Your task to perform on an android device: Open Google Maps Image 0: 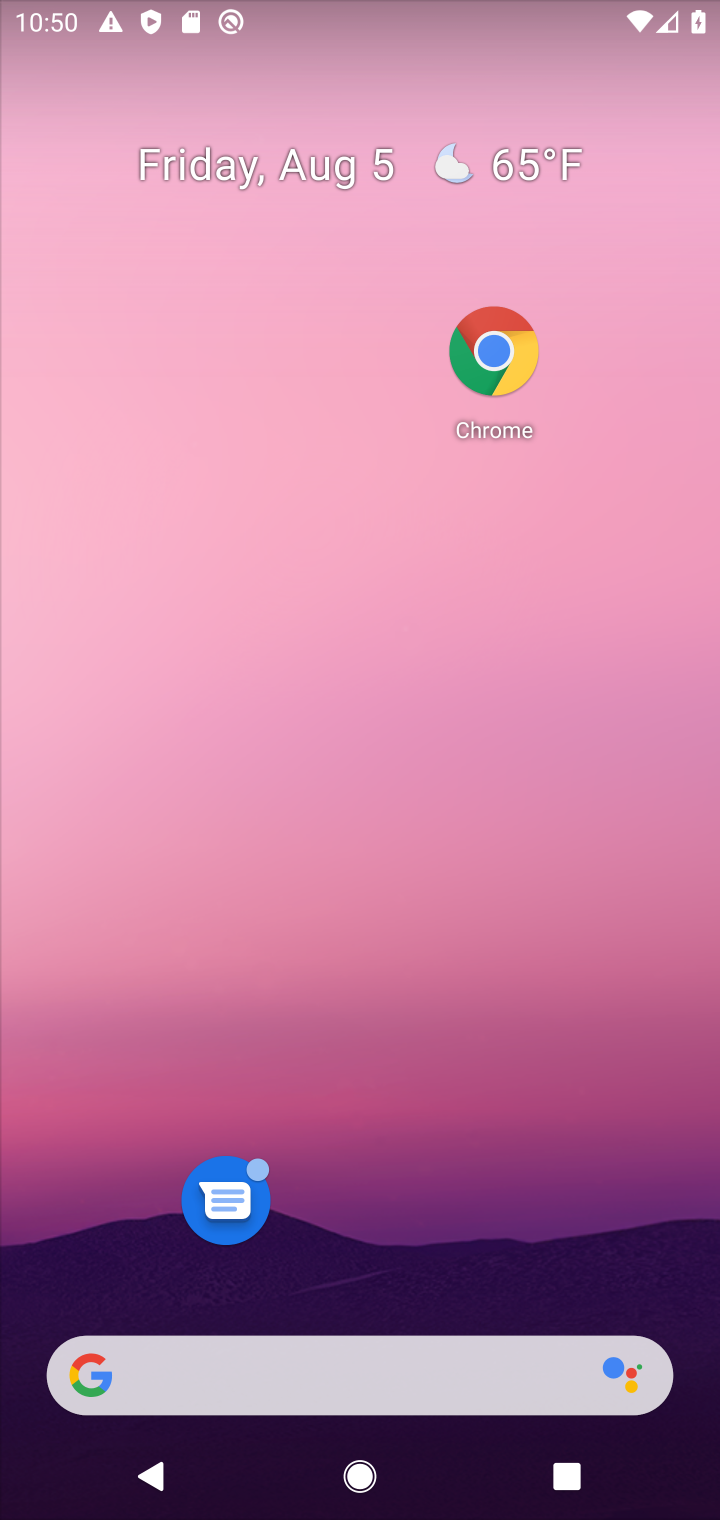
Step 0: drag from (397, 1142) to (462, 421)
Your task to perform on an android device: Open Google Maps Image 1: 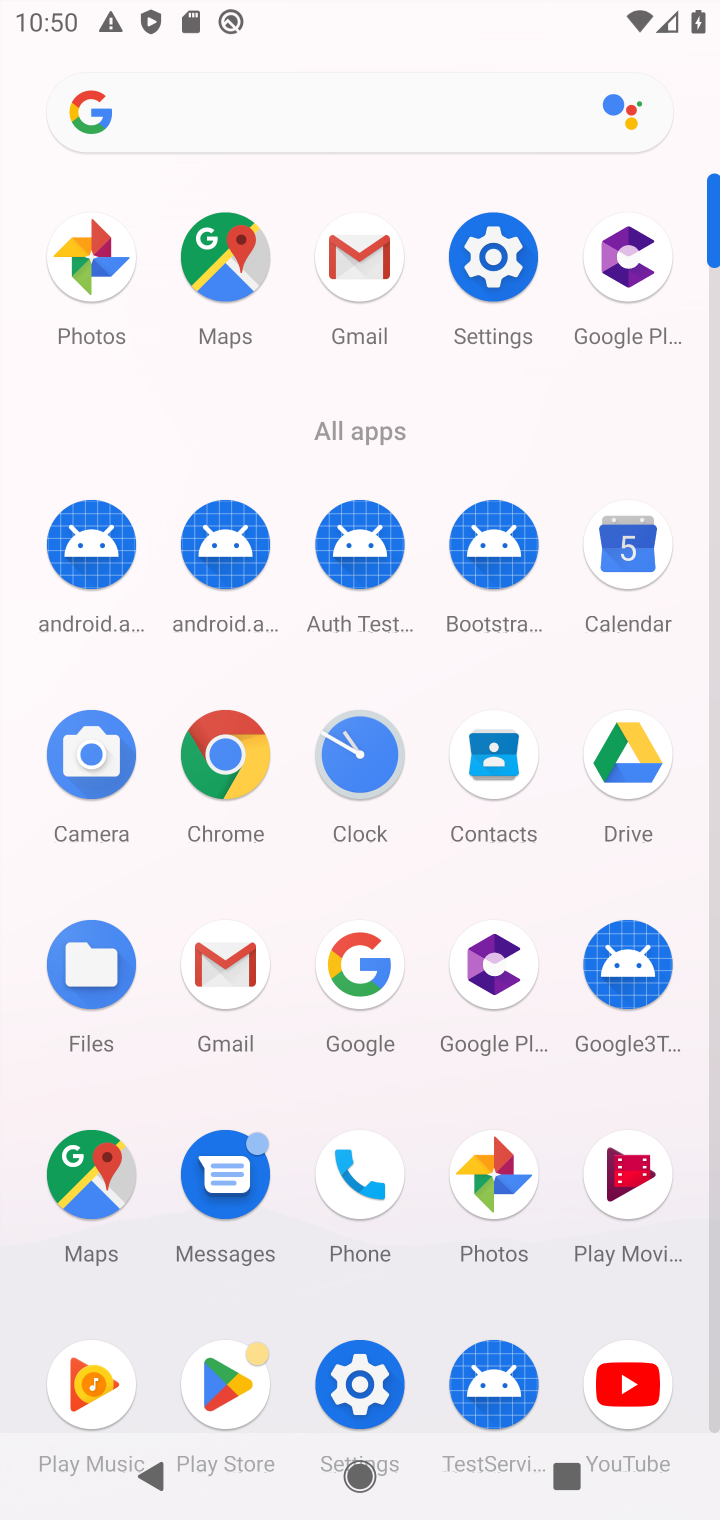
Step 1: click (252, 268)
Your task to perform on an android device: Open Google Maps Image 2: 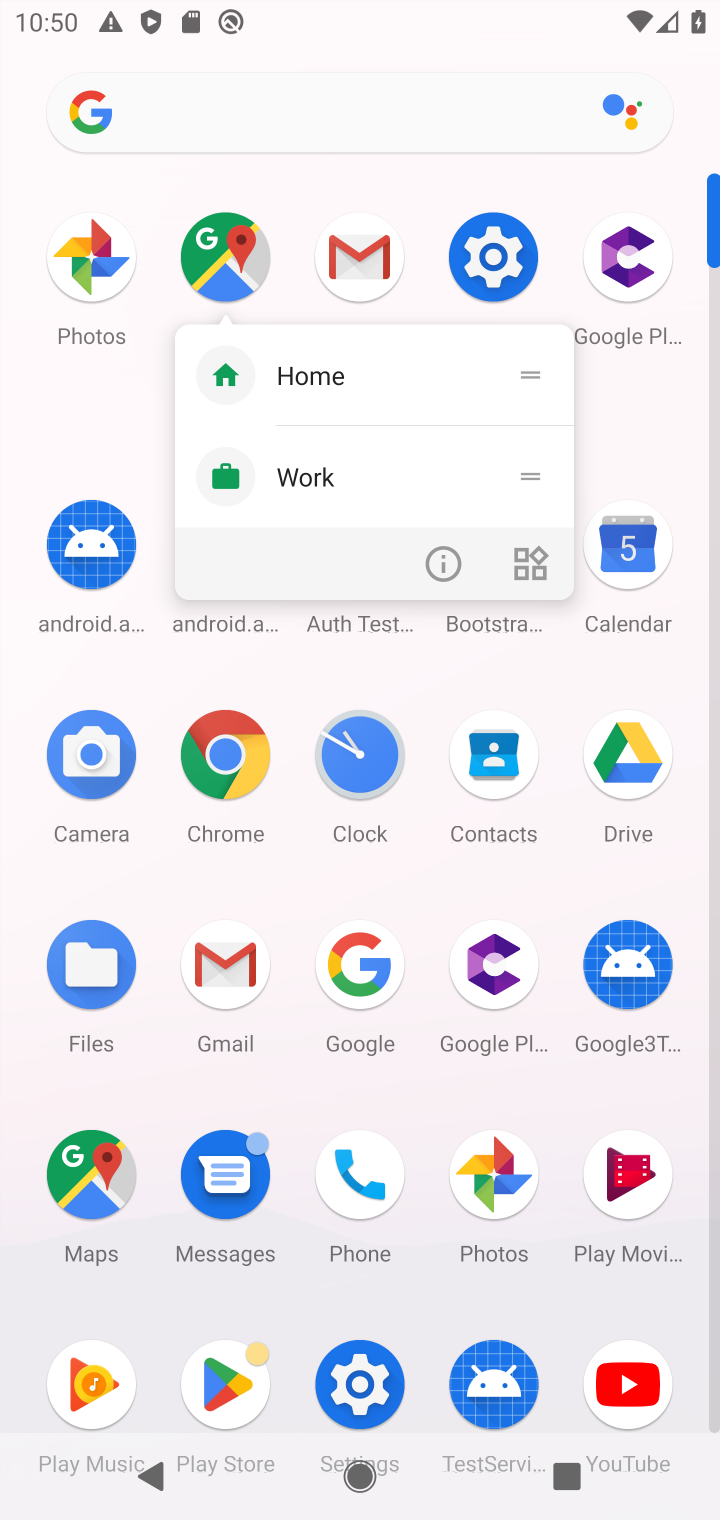
Step 2: click (233, 270)
Your task to perform on an android device: Open Google Maps Image 3: 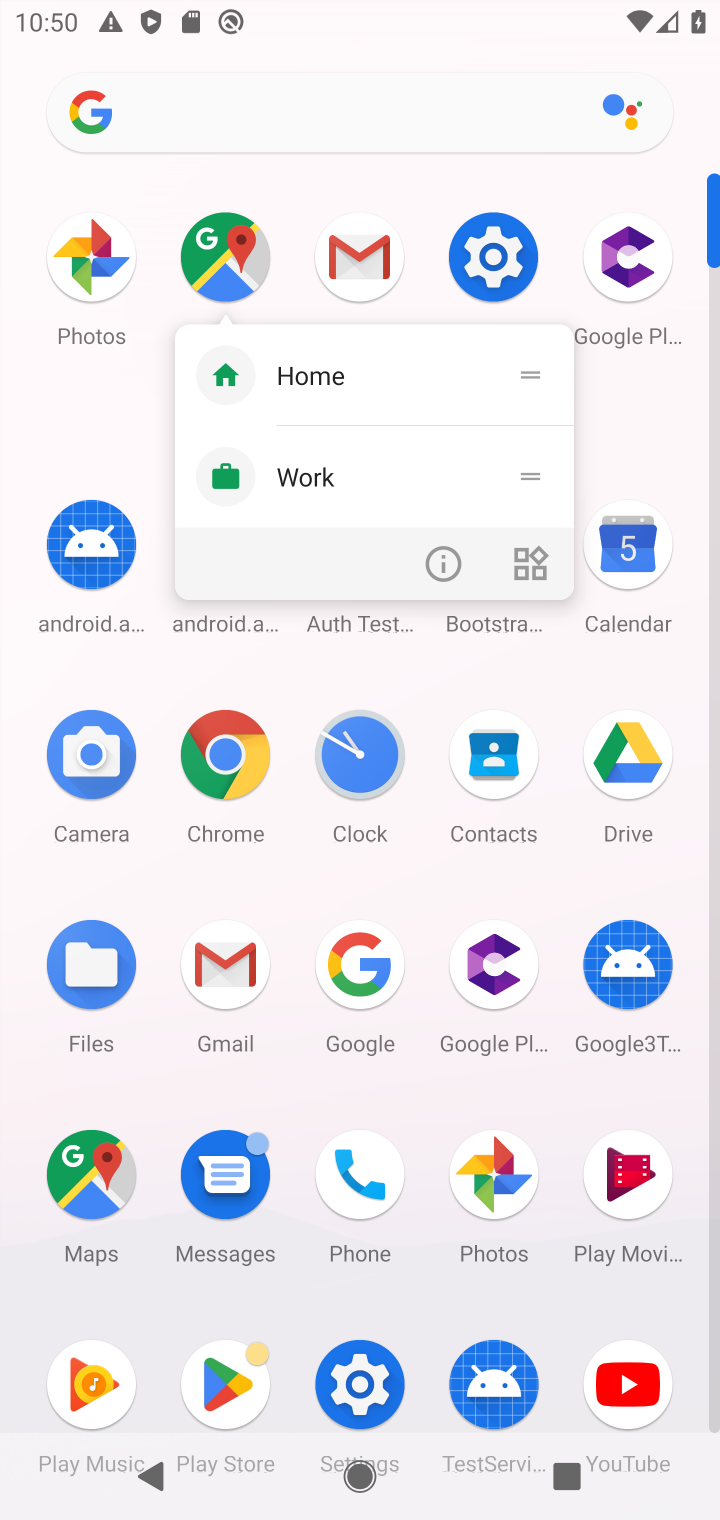
Step 3: click (204, 272)
Your task to perform on an android device: Open Google Maps Image 4: 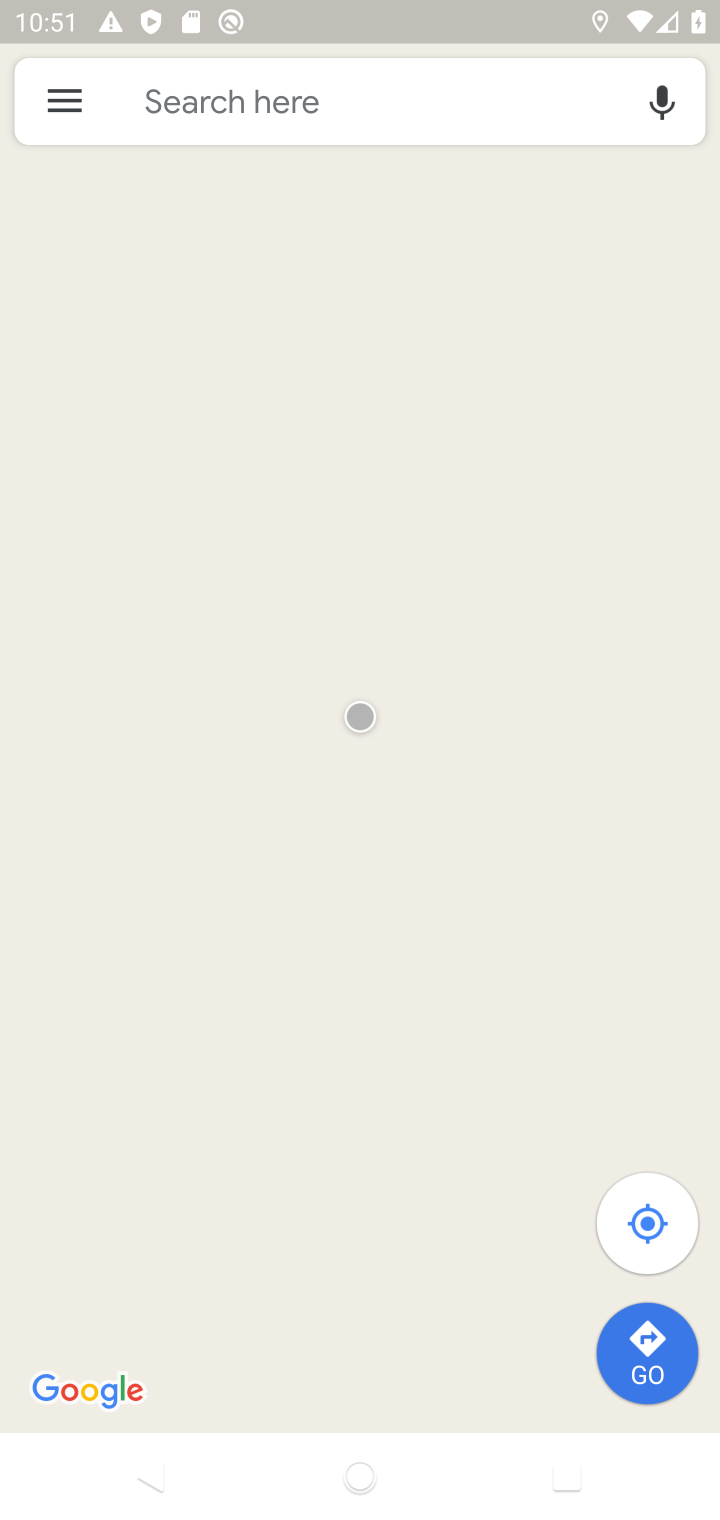
Step 4: click (334, 121)
Your task to perform on an android device: Open Google Maps Image 5: 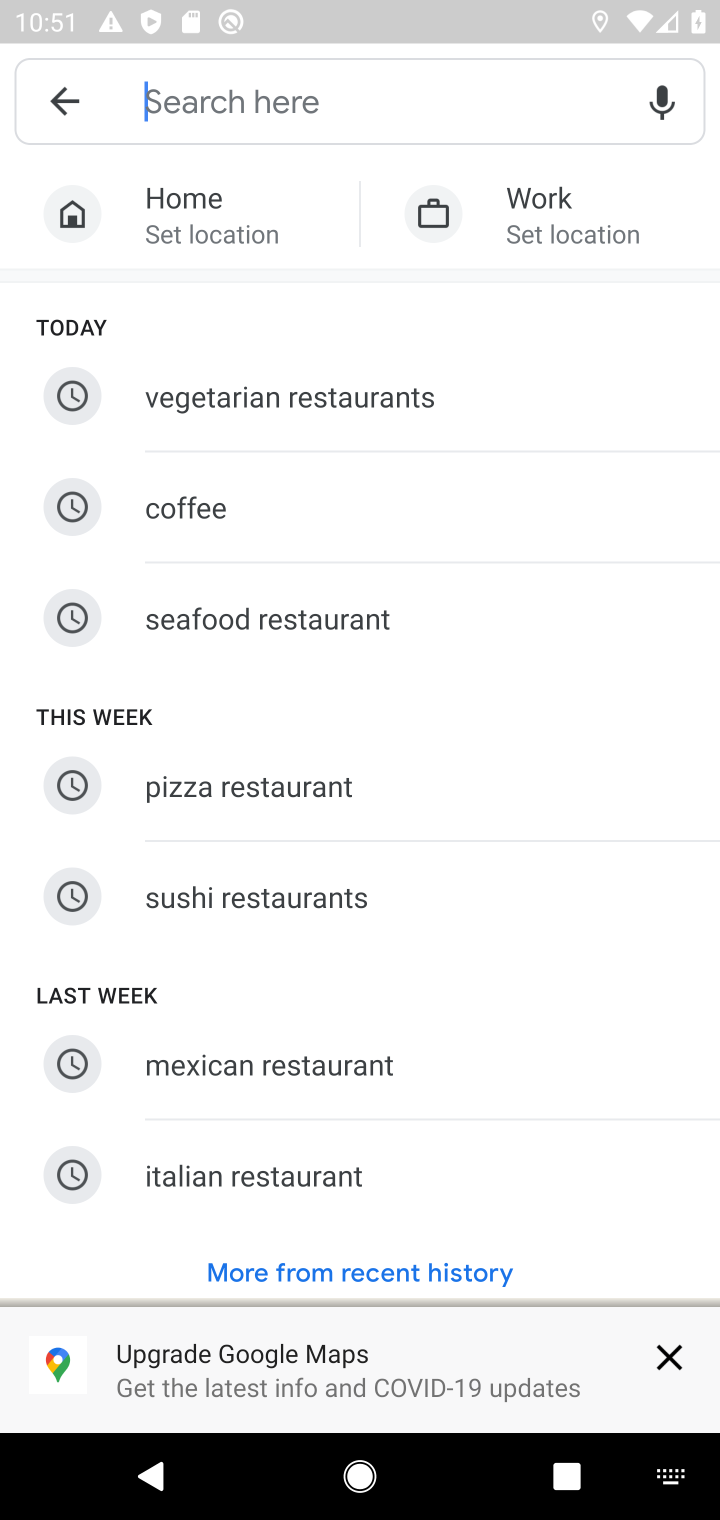
Step 5: task complete